Your task to perform on an android device: Go to accessibility settings Image 0: 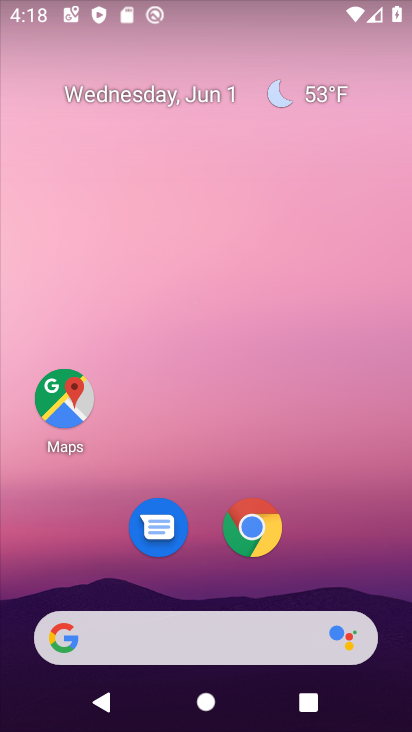
Step 0: drag from (297, 563) to (281, 62)
Your task to perform on an android device: Go to accessibility settings Image 1: 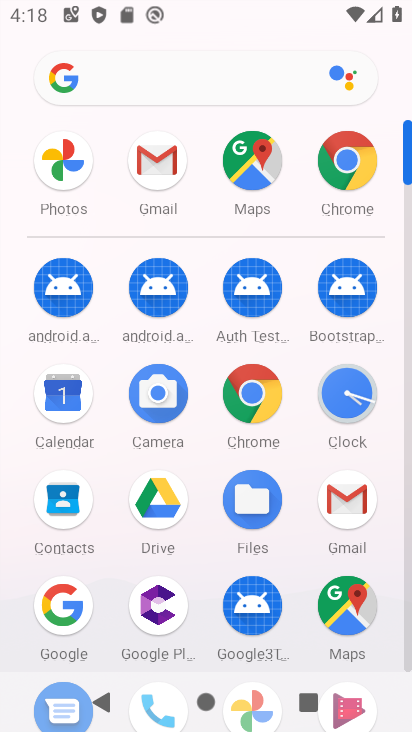
Step 1: drag from (206, 598) to (202, 172)
Your task to perform on an android device: Go to accessibility settings Image 2: 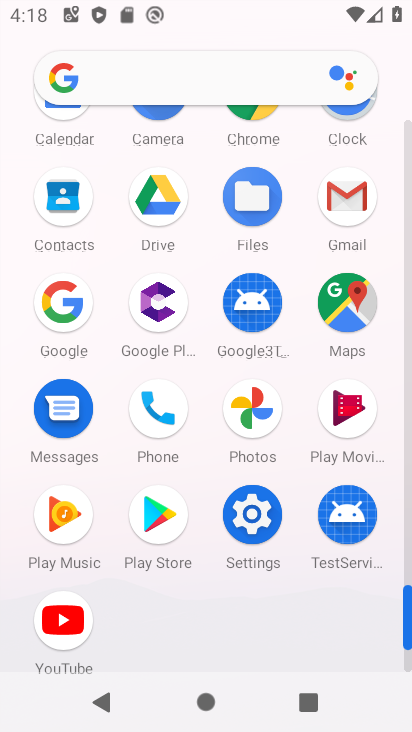
Step 2: click (246, 518)
Your task to perform on an android device: Go to accessibility settings Image 3: 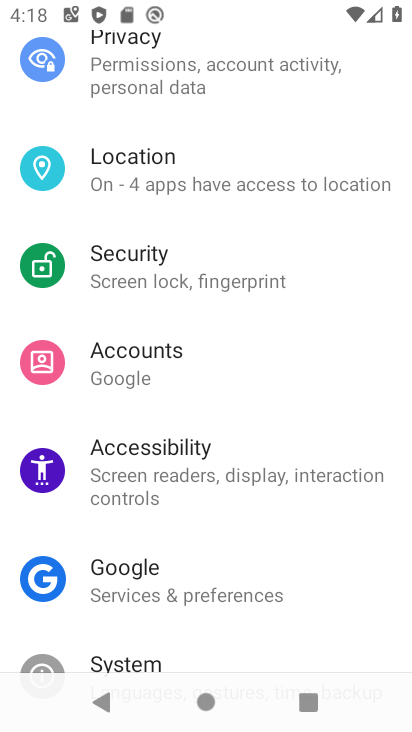
Step 3: click (179, 440)
Your task to perform on an android device: Go to accessibility settings Image 4: 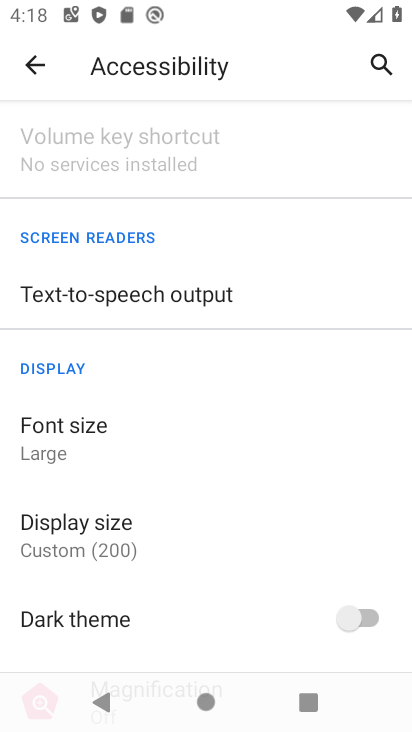
Step 4: task complete